Your task to perform on an android device: Go to eBay Image 0: 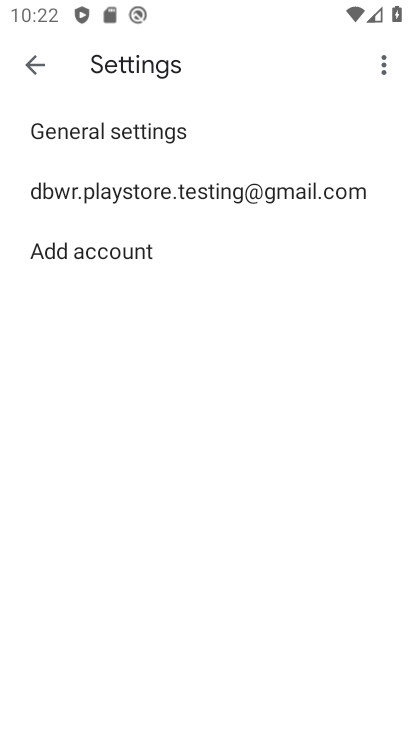
Step 0: press back button
Your task to perform on an android device: Go to eBay Image 1: 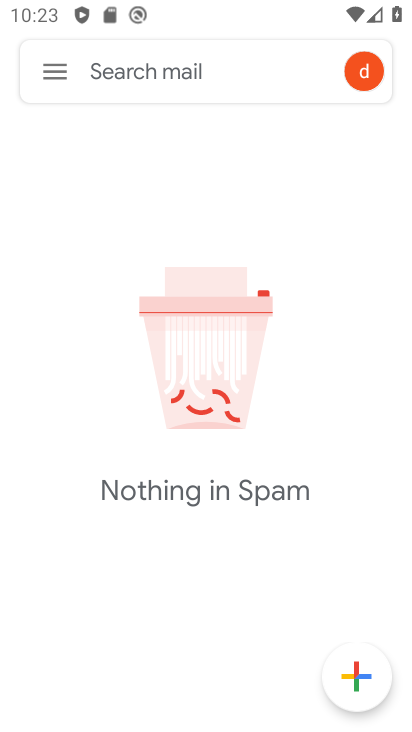
Step 1: press back button
Your task to perform on an android device: Go to eBay Image 2: 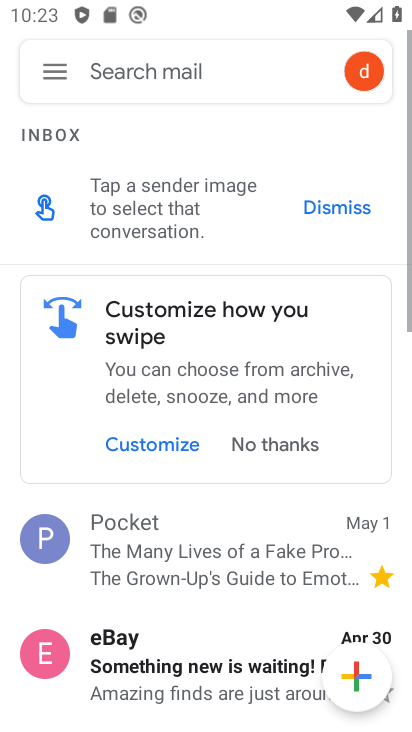
Step 2: press home button
Your task to perform on an android device: Go to eBay Image 3: 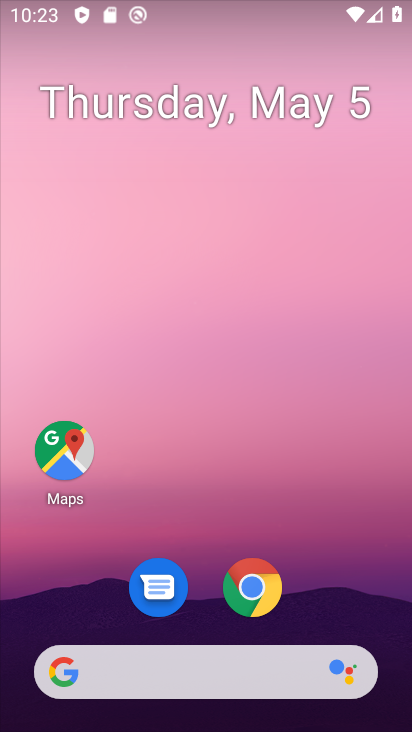
Step 3: click (252, 580)
Your task to perform on an android device: Go to eBay Image 4: 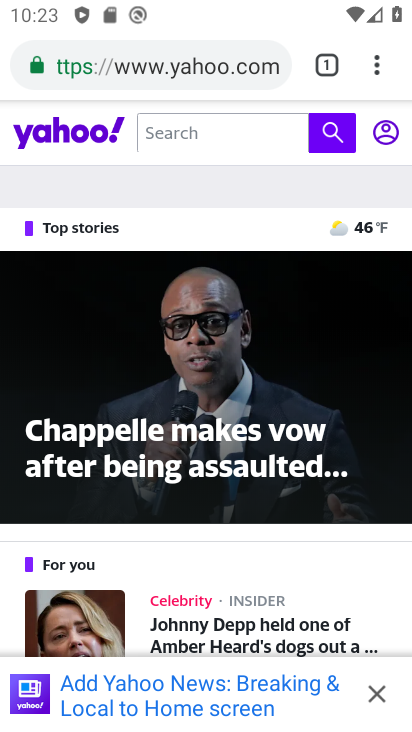
Step 4: click (196, 69)
Your task to perform on an android device: Go to eBay Image 5: 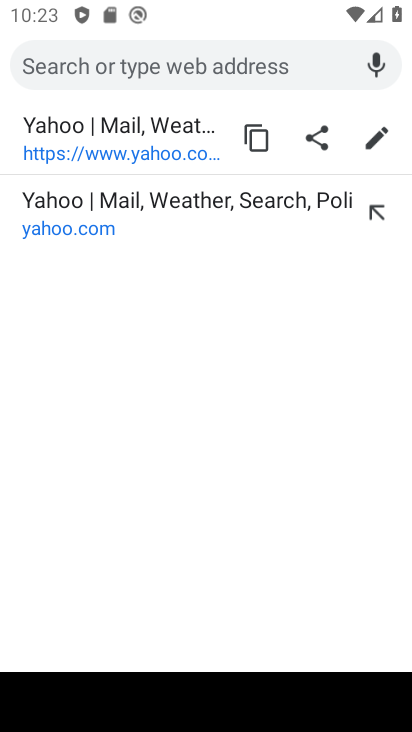
Step 5: type "eBay"
Your task to perform on an android device: Go to eBay Image 6: 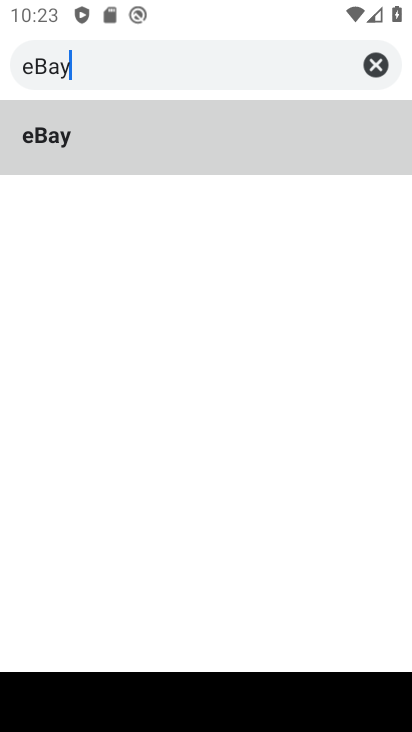
Step 6: type ""
Your task to perform on an android device: Go to eBay Image 7: 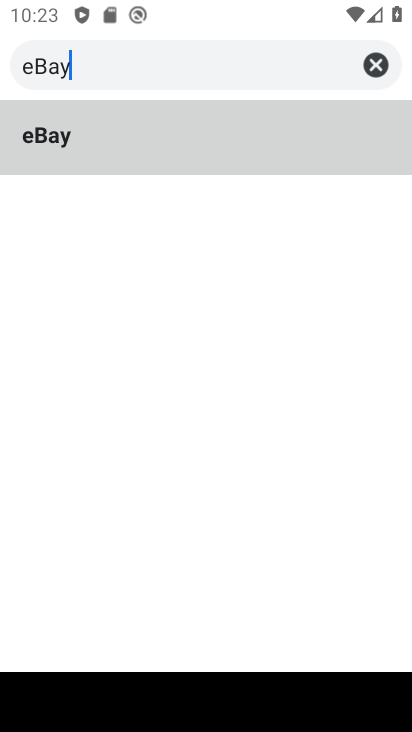
Step 7: click (140, 135)
Your task to perform on an android device: Go to eBay Image 8: 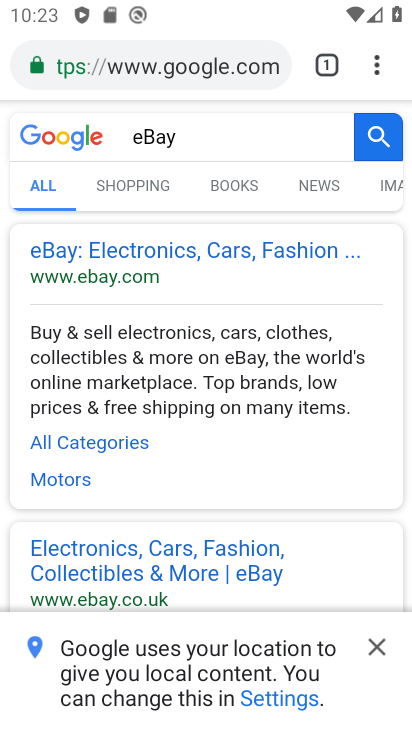
Step 8: click (142, 252)
Your task to perform on an android device: Go to eBay Image 9: 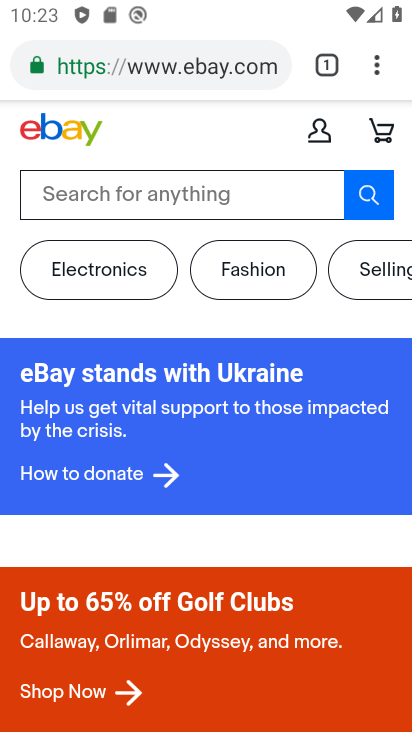
Step 9: task complete